Your task to perform on an android device: toggle javascript in the chrome app Image 0: 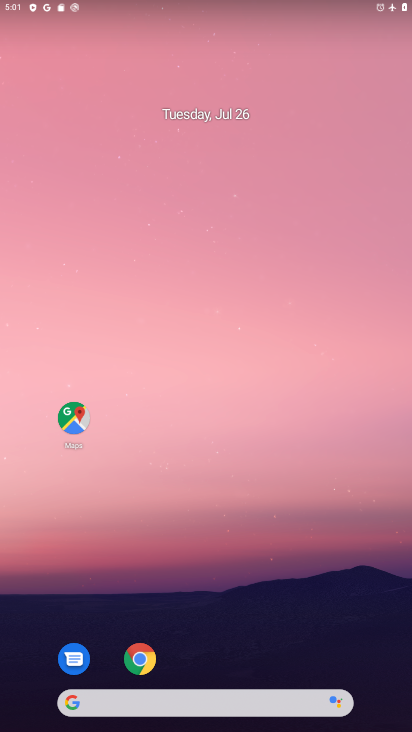
Step 0: click (135, 654)
Your task to perform on an android device: toggle javascript in the chrome app Image 1: 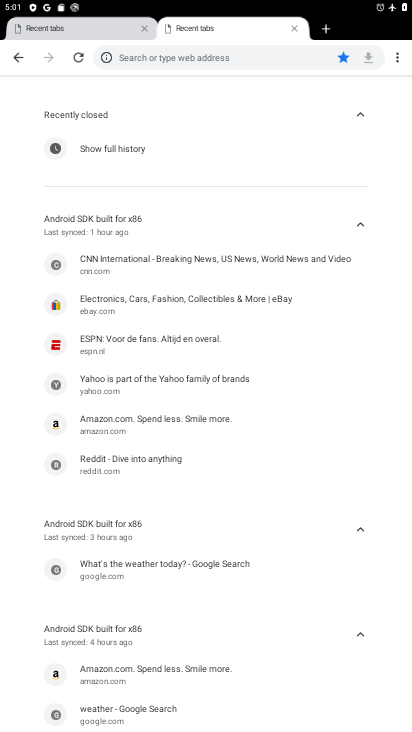
Step 1: click (395, 55)
Your task to perform on an android device: toggle javascript in the chrome app Image 2: 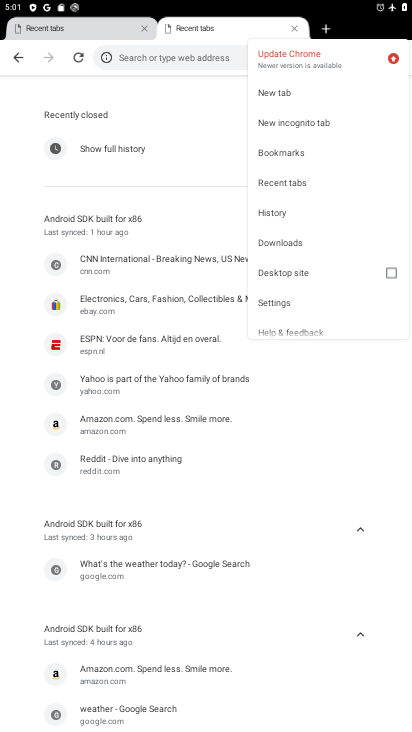
Step 2: click (298, 300)
Your task to perform on an android device: toggle javascript in the chrome app Image 3: 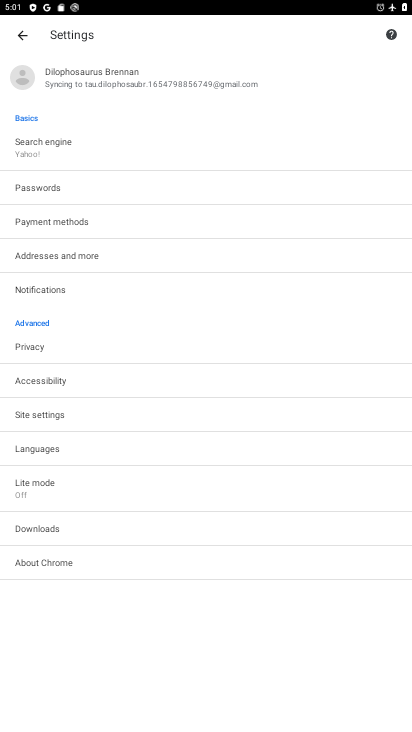
Step 3: click (71, 407)
Your task to perform on an android device: toggle javascript in the chrome app Image 4: 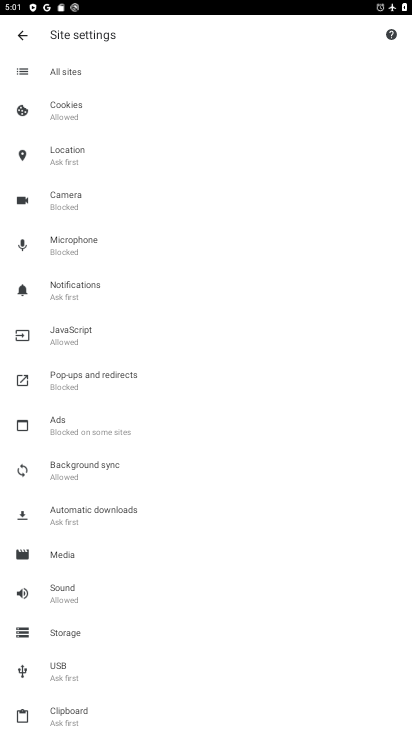
Step 4: click (89, 330)
Your task to perform on an android device: toggle javascript in the chrome app Image 5: 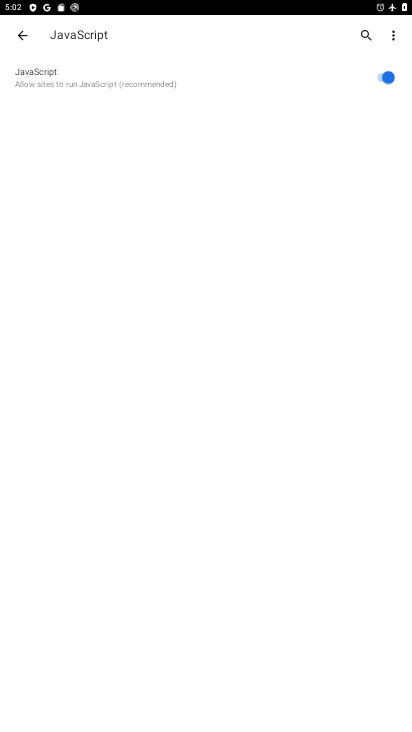
Step 5: task complete